Your task to perform on an android device: Open the calendar app, open the side menu, and click the "Day" option Image 0: 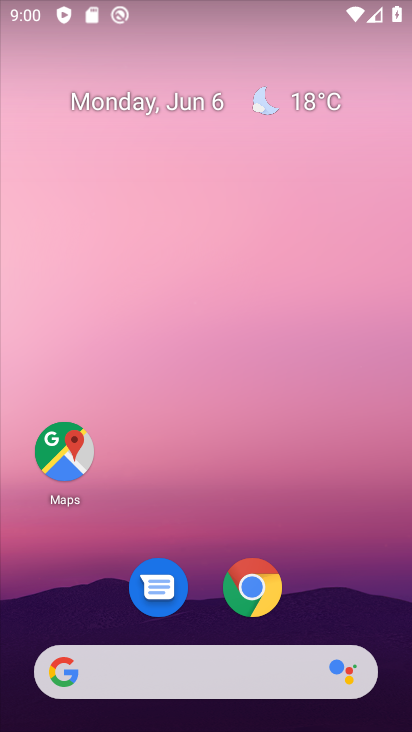
Step 0: drag from (405, 610) to (264, 210)
Your task to perform on an android device: Open the calendar app, open the side menu, and click the "Day" option Image 1: 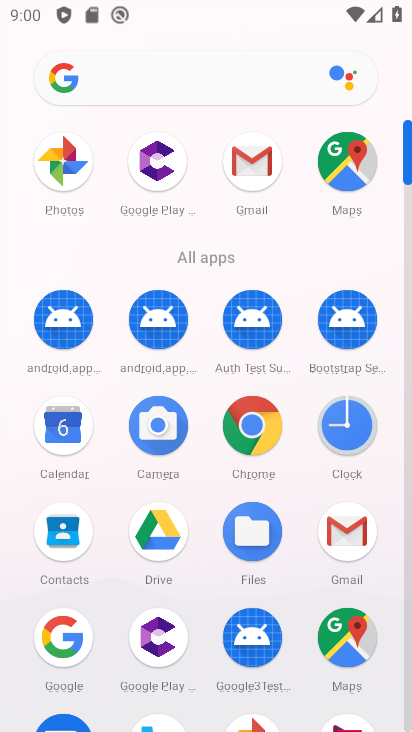
Step 1: click (73, 429)
Your task to perform on an android device: Open the calendar app, open the side menu, and click the "Day" option Image 2: 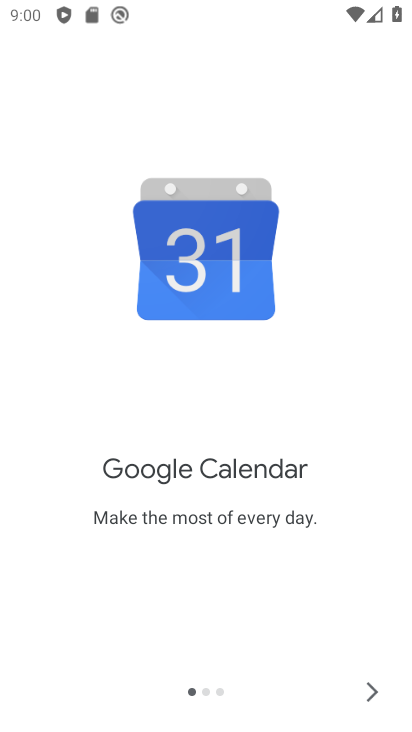
Step 2: click (373, 686)
Your task to perform on an android device: Open the calendar app, open the side menu, and click the "Day" option Image 3: 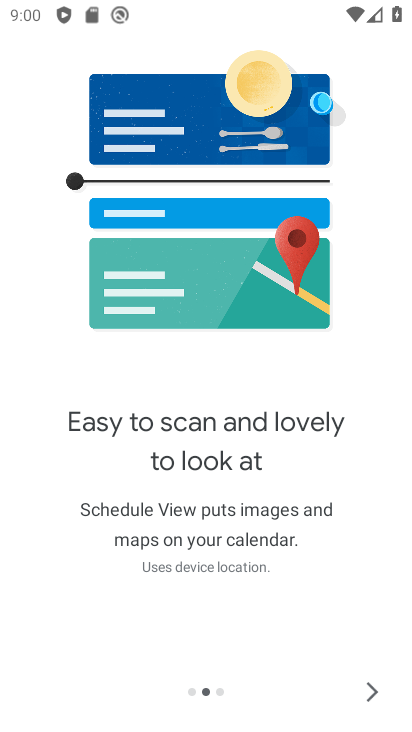
Step 3: click (373, 686)
Your task to perform on an android device: Open the calendar app, open the side menu, and click the "Day" option Image 4: 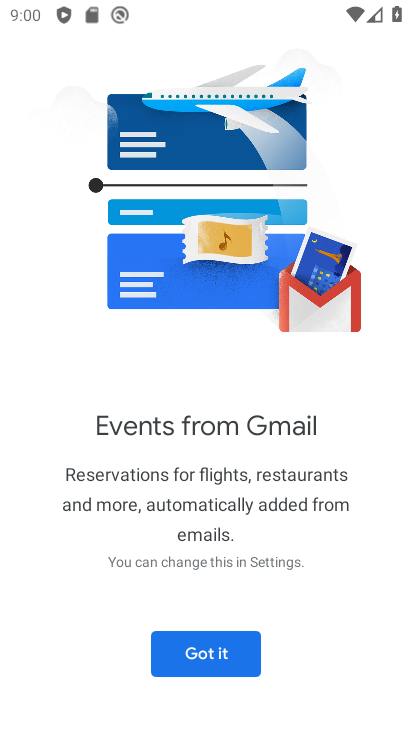
Step 4: click (201, 657)
Your task to perform on an android device: Open the calendar app, open the side menu, and click the "Day" option Image 5: 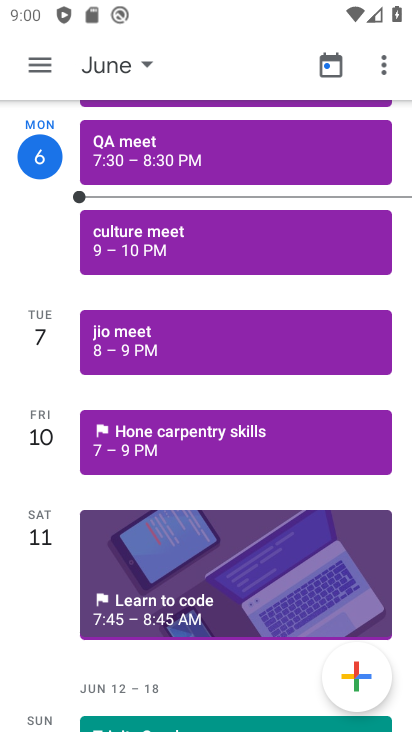
Step 5: click (49, 66)
Your task to perform on an android device: Open the calendar app, open the side menu, and click the "Day" option Image 6: 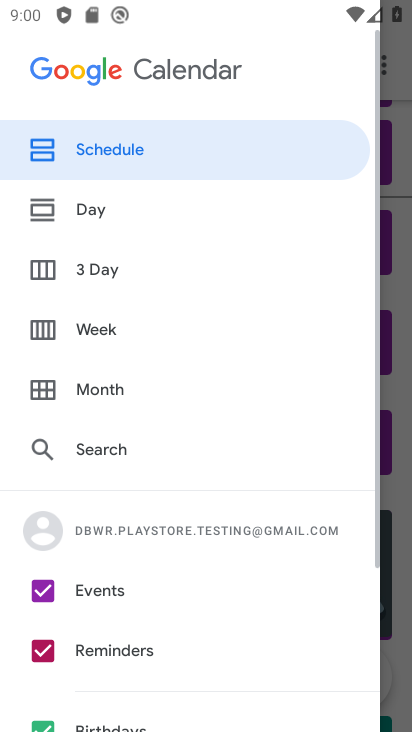
Step 6: click (132, 215)
Your task to perform on an android device: Open the calendar app, open the side menu, and click the "Day" option Image 7: 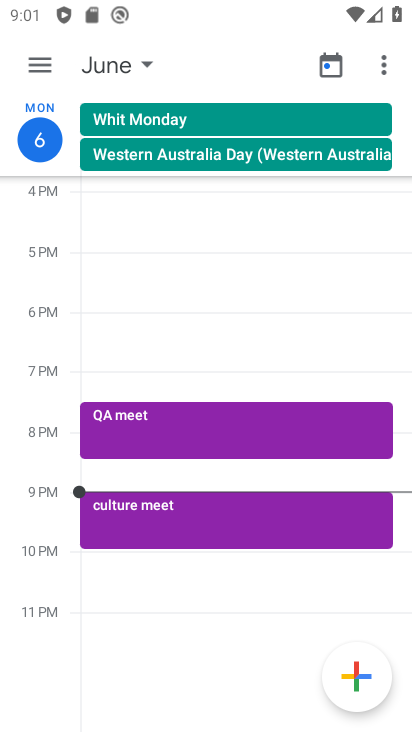
Step 7: task complete